Your task to perform on an android device: Open Google Chrome and open the bookmarks view Image 0: 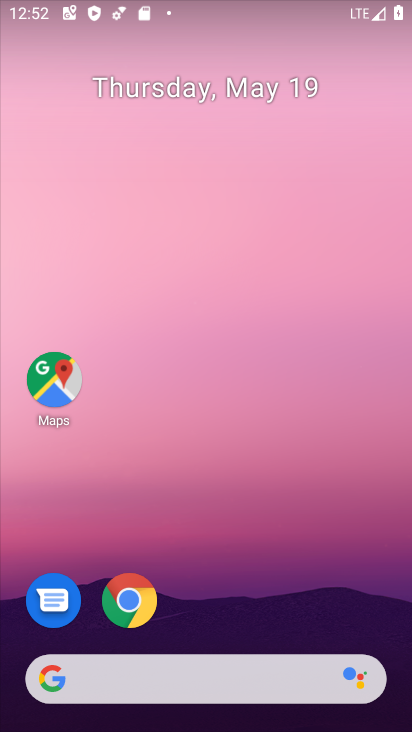
Step 0: click (132, 594)
Your task to perform on an android device: Open Google Chrome and open the bookmarks view Image 1: 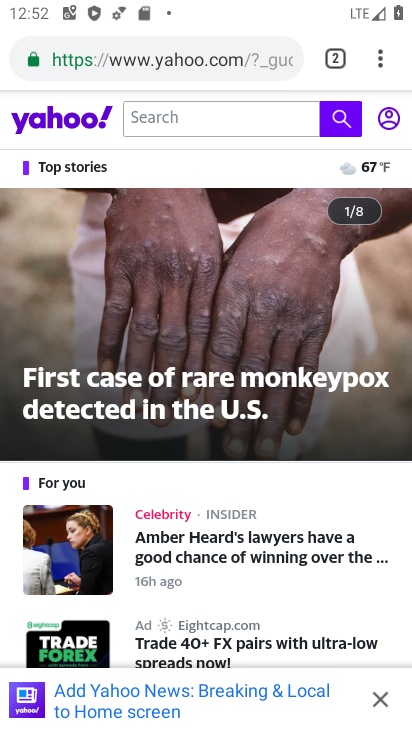
Step 1: click (376, 54)
Your task to perform on an android device: Open Google Chrome and open the bookmarks view Image 2: 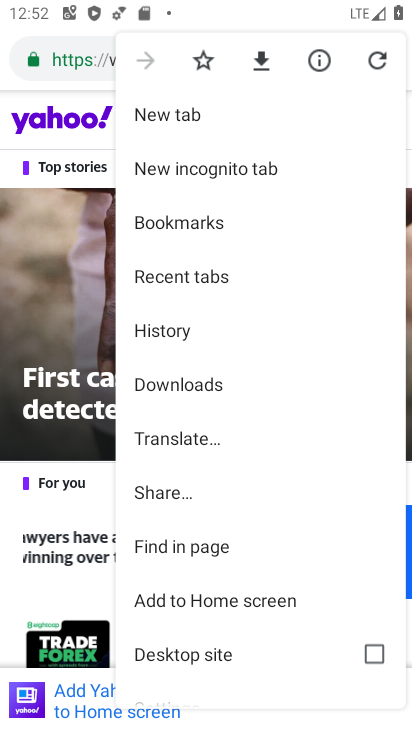
Step 2: click (180, 213)
Your task to perform on an android device: Open Google Chrome and open the bookmarks view Image 3: 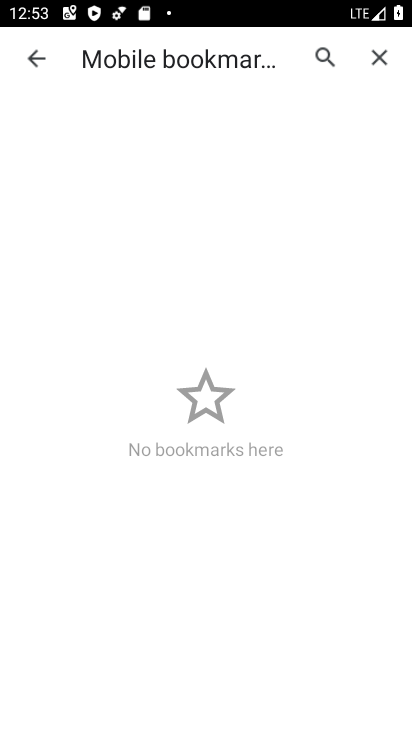
Step 3: task complete